Your task to perform on an android device: move a message to another label in the gmail app Image 0: 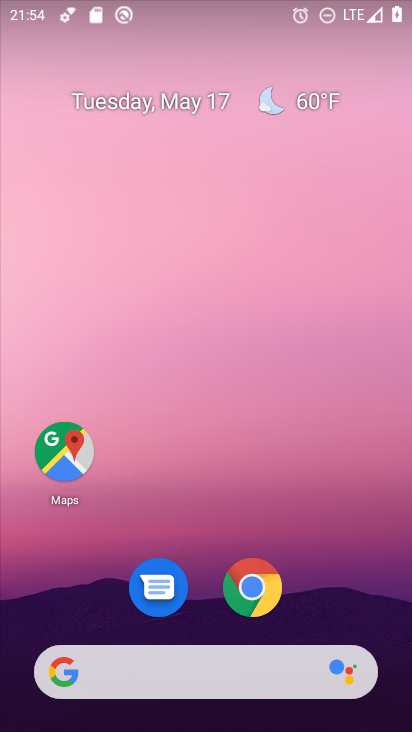
Step 0: drag from (246, 528) to (217, 98)
Your task to perform on an android device: move a message to another label in the gmail app Image 1: 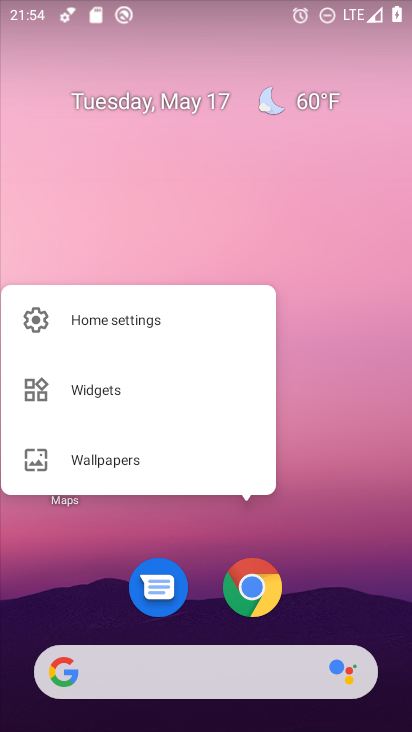
Step 1: drag from (236, 482) to (204, 135)
Your task to perform on an android device: move a message to another label in the gmail app Image 2: 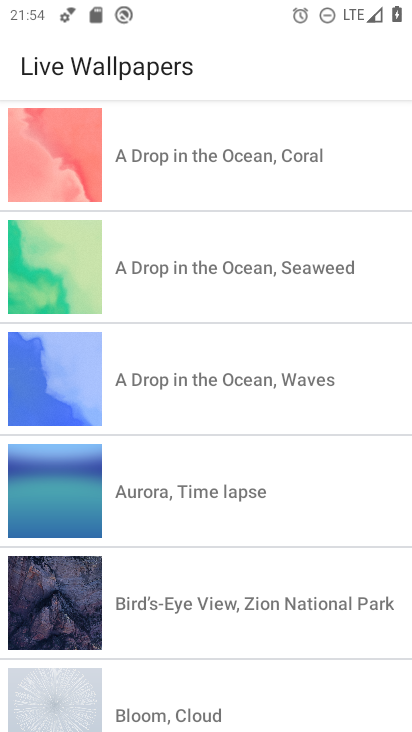
Step 2: press home button
Your task to perform on an android device: move a message to another label in the gmail app Image 3: 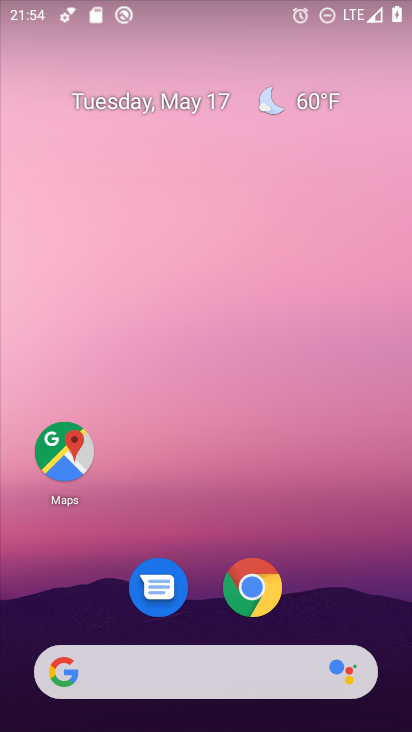
Step 3: drag from (260, 444) to (254, 201)
Your task to perform on an android device: move a message to another label in the gmail app Image 4: 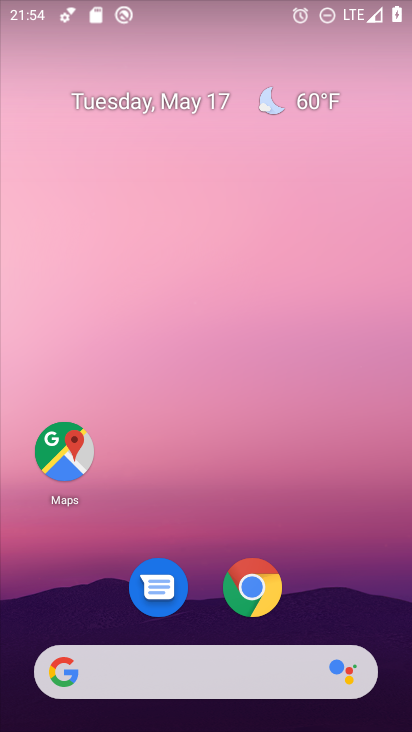
Step 4: drag from (306, 491) to (291, 32)
Your task to perform on an android device: move a message to another label in the gmail app Image 5: 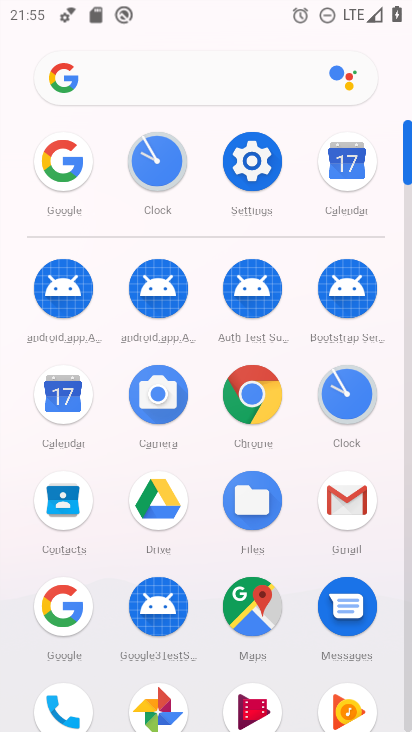
Step 5: click (372, 508)
Your task to perform on an android device: move a message to another label in the gmail app Image 6: 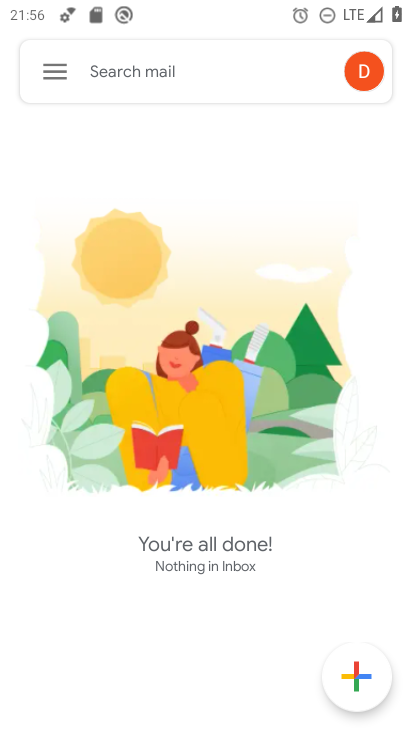
Step 6: click (47, 75)
Your task to perform on an android device: move a message to another label in the gmail app Image 7: 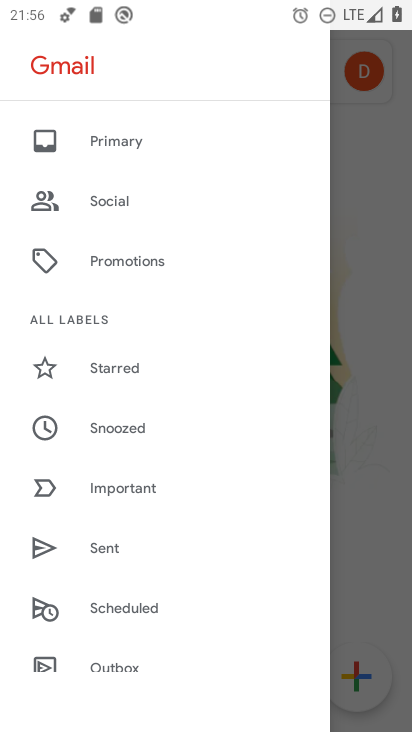
Step 7: drag from (118, 660) to (144, 300)
Your task to perform on an android device: move a message to another label in the gmail app Image 8: 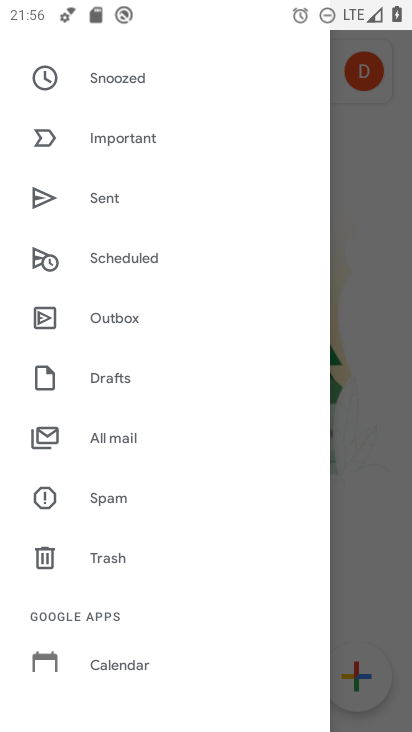
Step 8: drag from (134, 543) to (185, 146)
Your task to perform on an android device: move a message to another label in the gmail app Image 9: 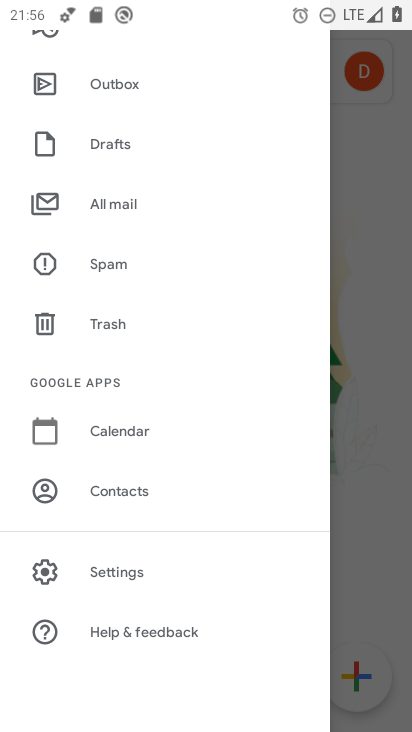
Step 9: drag from (128, 506) to (169, 255)
Your task to perform on an android device: move a message to another label in the gmail app Image 10: 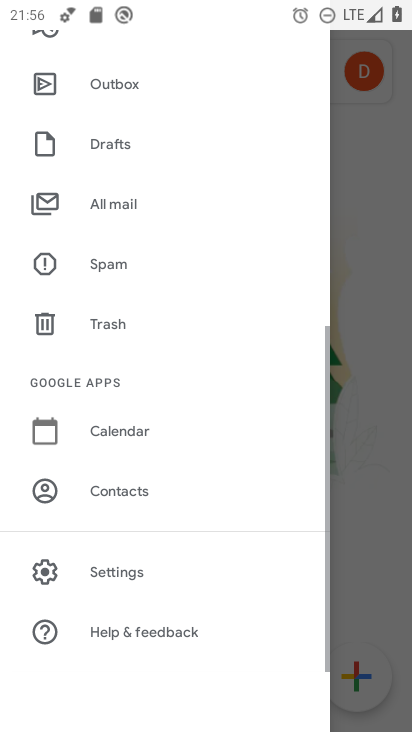
Step 10: click (156, 212)
Your task to perform on an android device: move a message to another label in the gmail app Image 11: 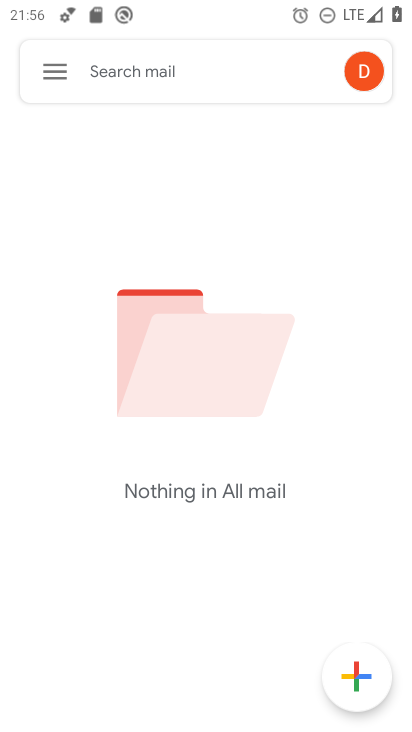
Step 11: task complete